Your task to perform on an android device: Open settings on Google Maps Image 0: 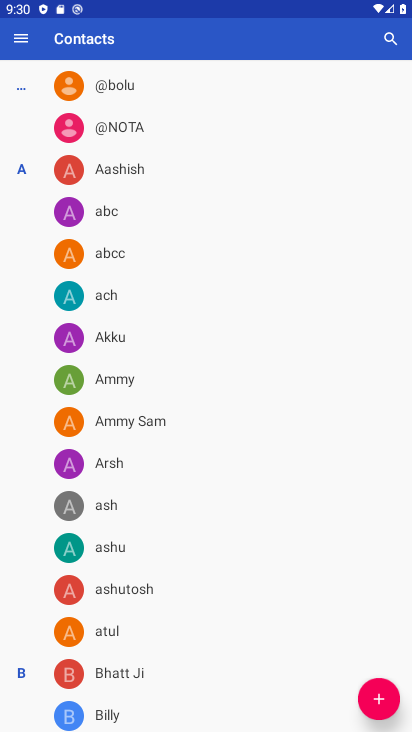
Step 0: press home button
Your task to perform on an android device: Open settings on Google Maps Image 1: 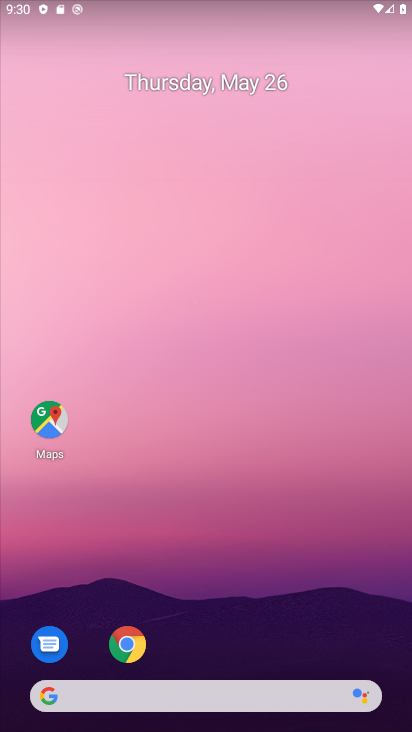
Step 1: click (46, 421)
Your task to perform on an android device: Open settings on Google Maps Image 2: 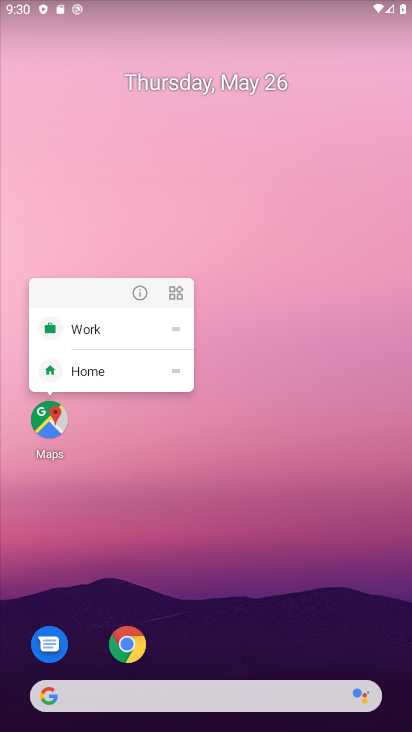
Step 2: click (49, 423)
Your task to perform on an android device: Open settings on Google Maps Image 3: 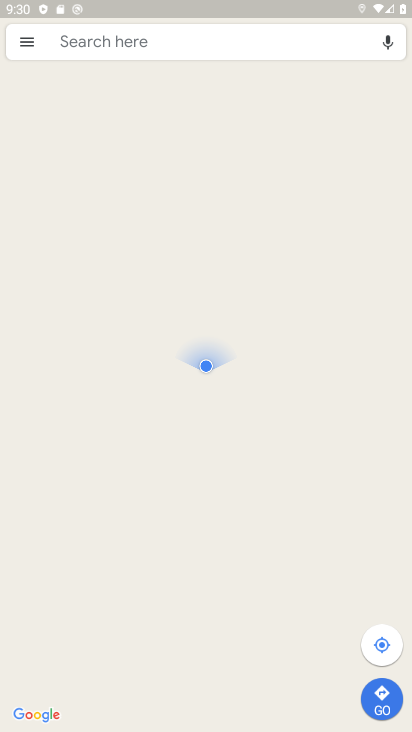
Step 3: click (42, 41)
Your task to perform on an android device: Open settings on Google Maps Image 4: 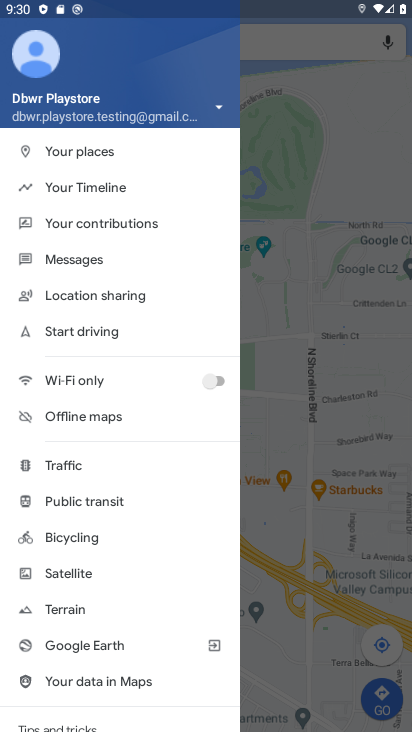
Step 4: drag from (110, 631) to (179, 259)
Your task to perform on an android device: Open settings on Google Maps Image 5: 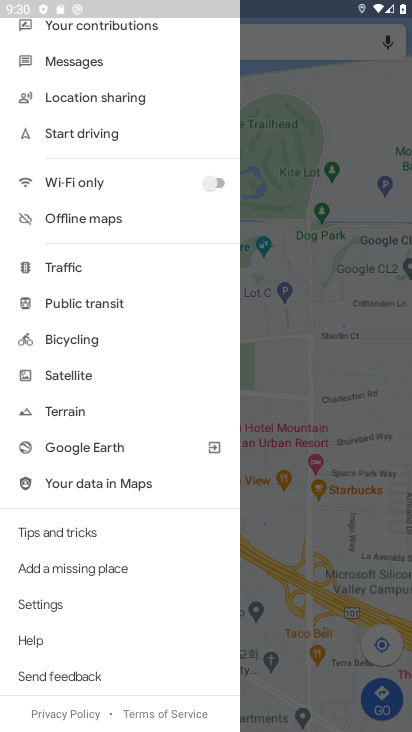
Step 5: click (56, 606)
Your task to perform on an android device: Open settings on Google Maps Image 6: 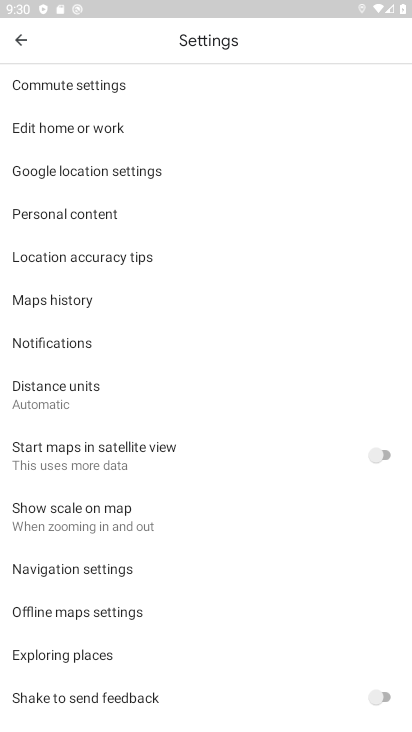
Step 6: task complete